Your task to perform on an android device: Play the latest video from the BBC Image 0: 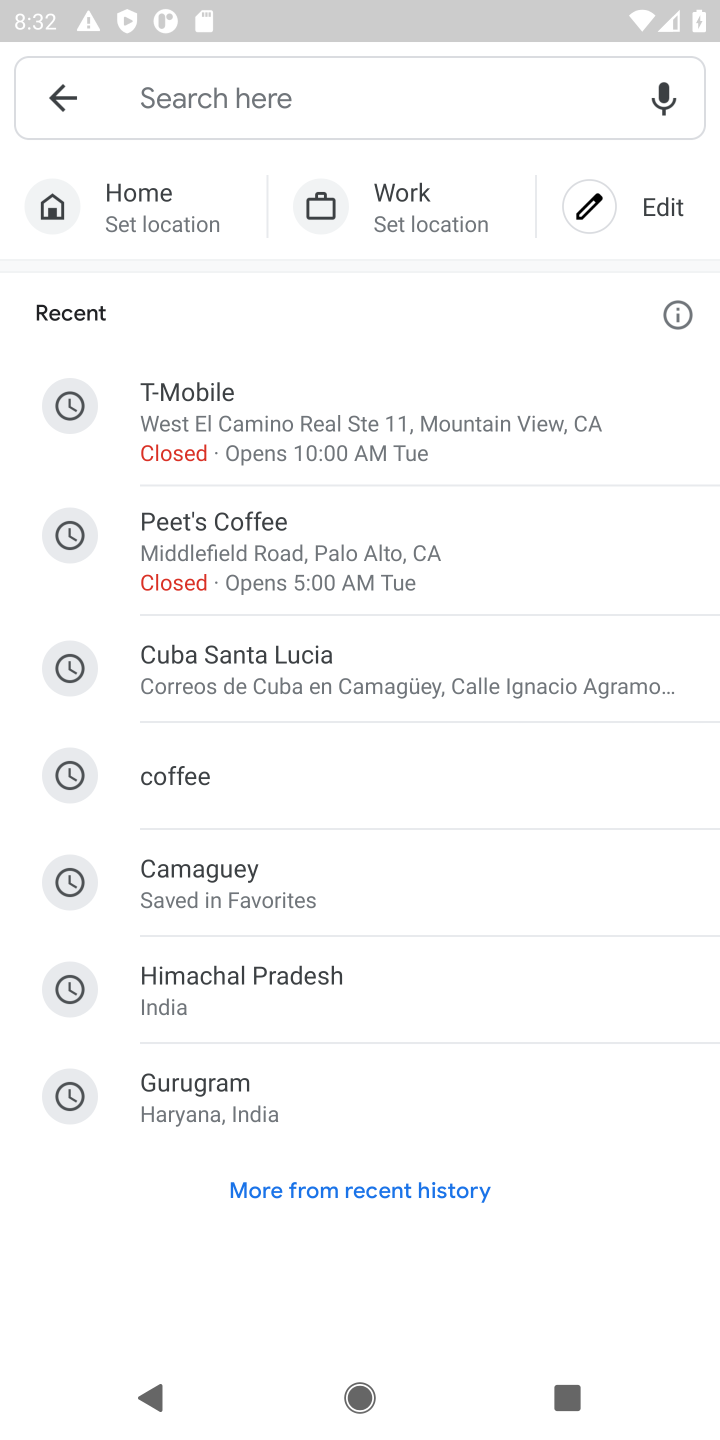
Step 0: press home button
Your task to perform on an android device: Play the latest video from the BBC Image 1: 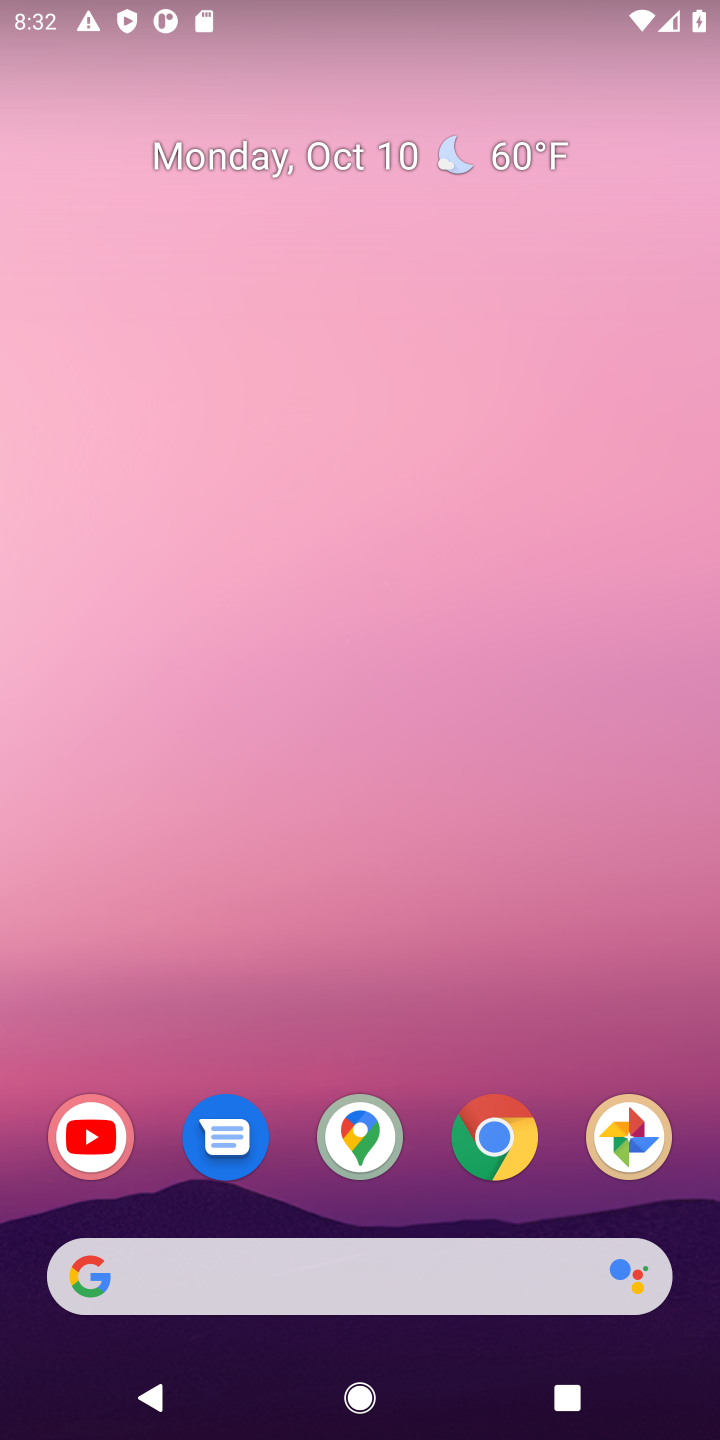
Step 1: click (85, 1140)
Your task to perform on an android device: Play the latest video from the BBC Image 2: 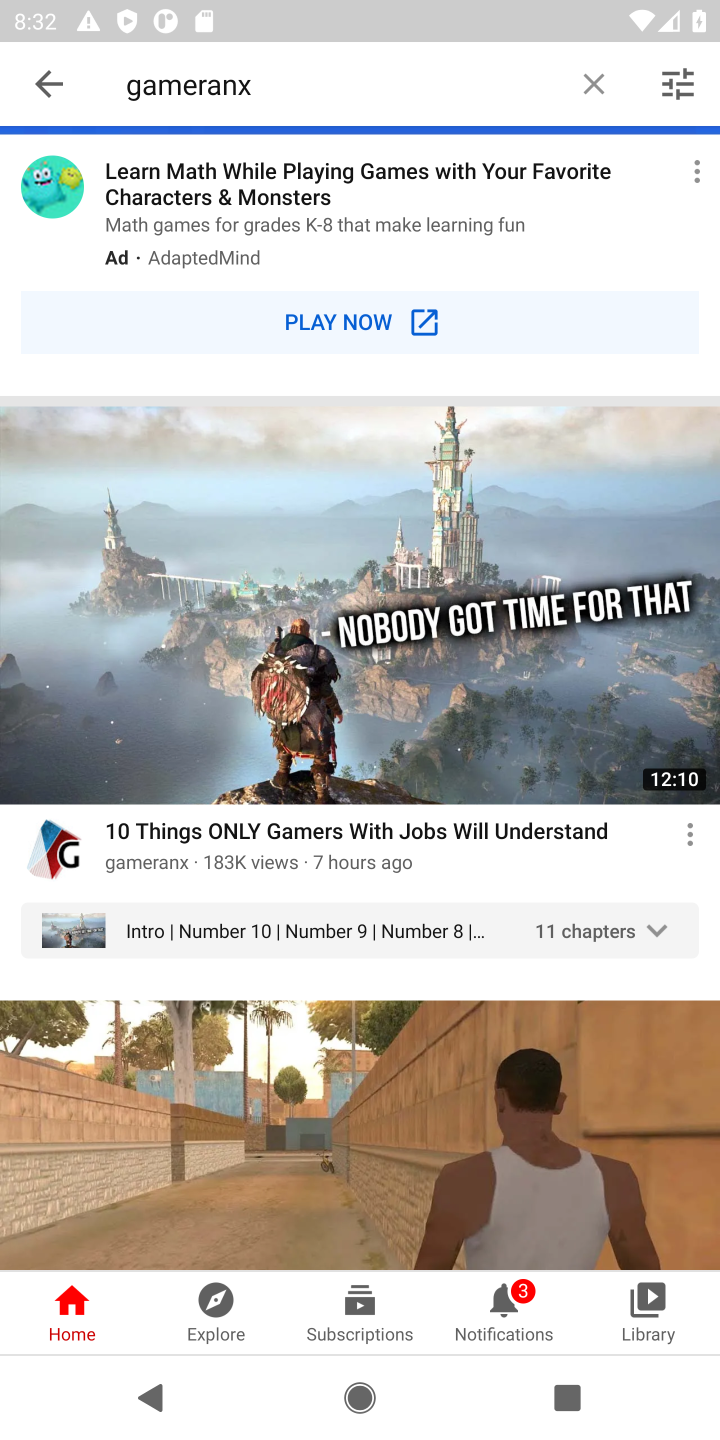
Step 2: click (586, 78)
Your task to perform on an android device: Play the latest video from the BBC Image 3: 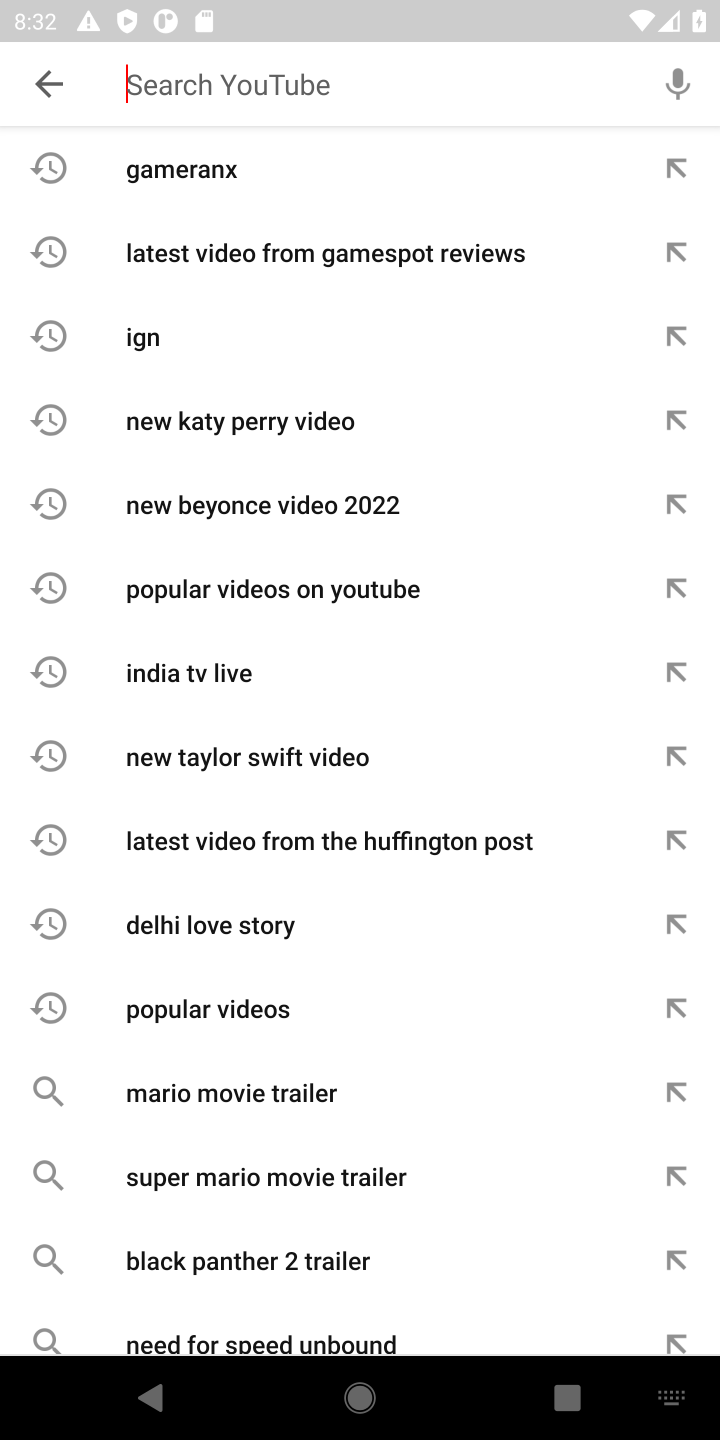
Step 3: type "BBC"
Your task to perform on an android device: Play the latest video from the BBC Image 4: 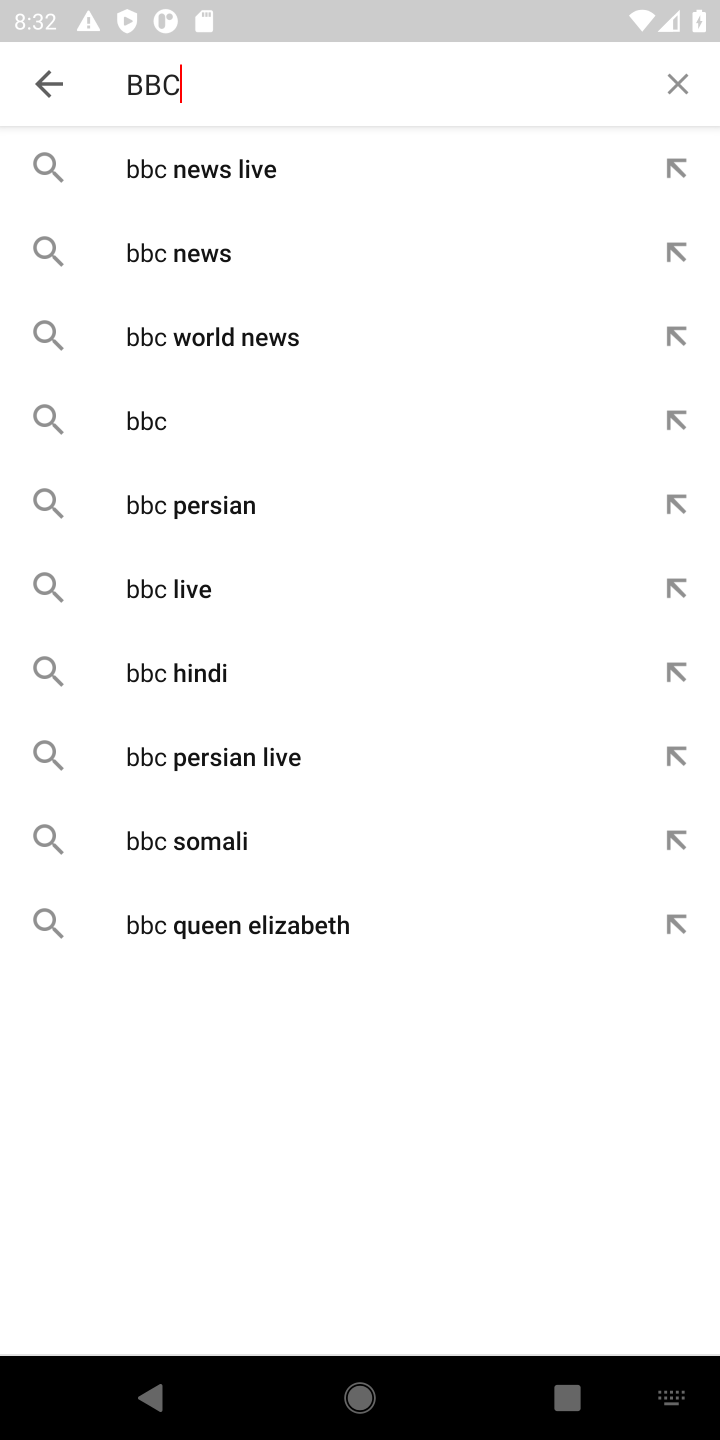
Step 4: click (164, 250)
Your task to perform on an android device: Play the latest video from the BBC Image 5: 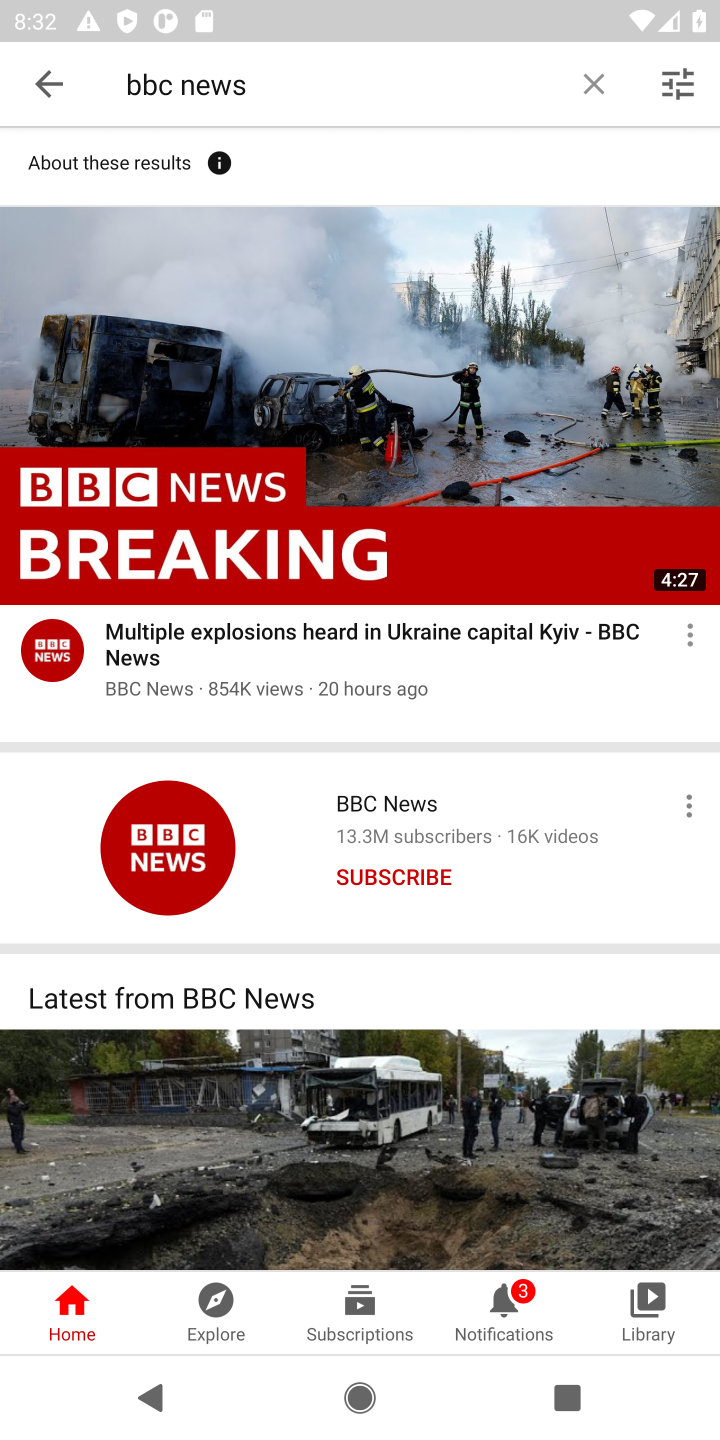
Step 5: click (381, 809)
Your task to perform on an android device: Play the latest video from the BBC Image 6: 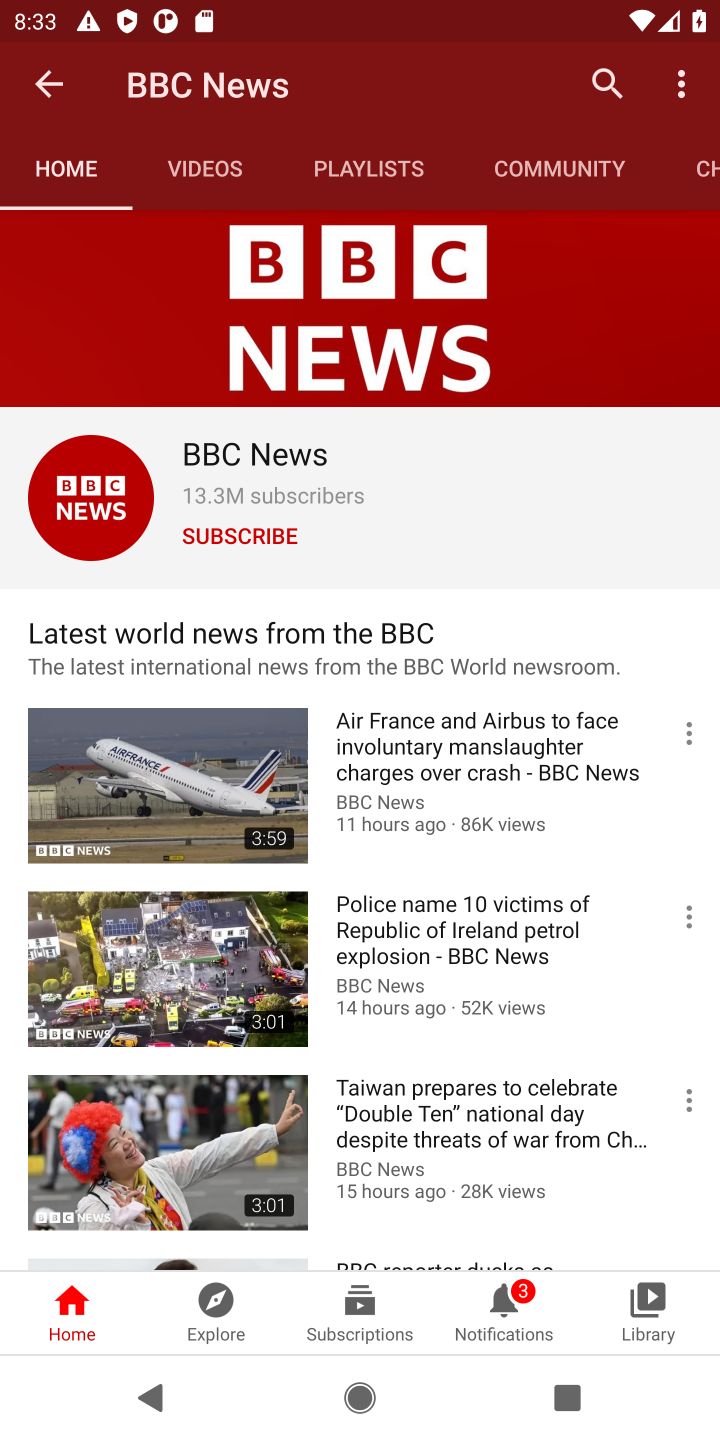
Step 6: click (205, 177)
Your task to perform on an android device: Play the latest video from the BBC Image 7: 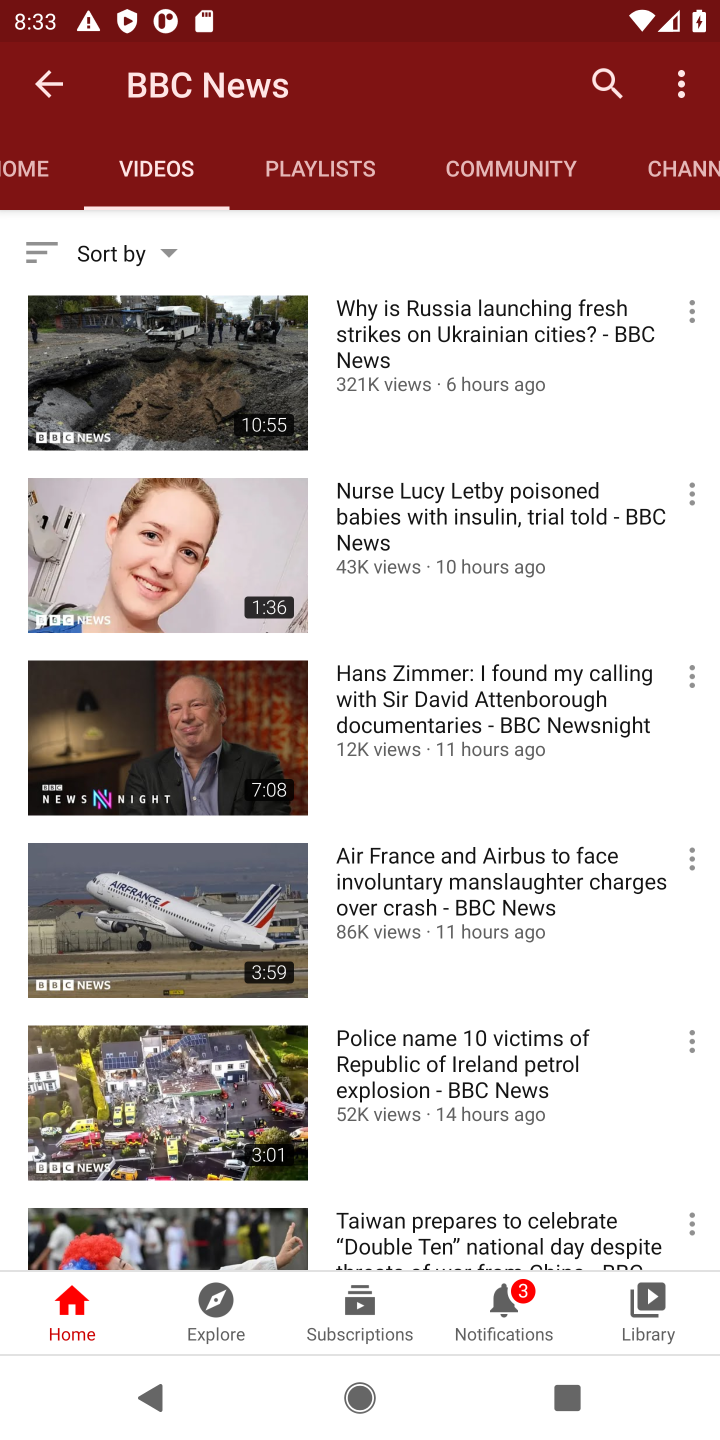
Step 7: click (15, 165)
Your task to perform on an android device: Play the latest video from the BBC Image 8: 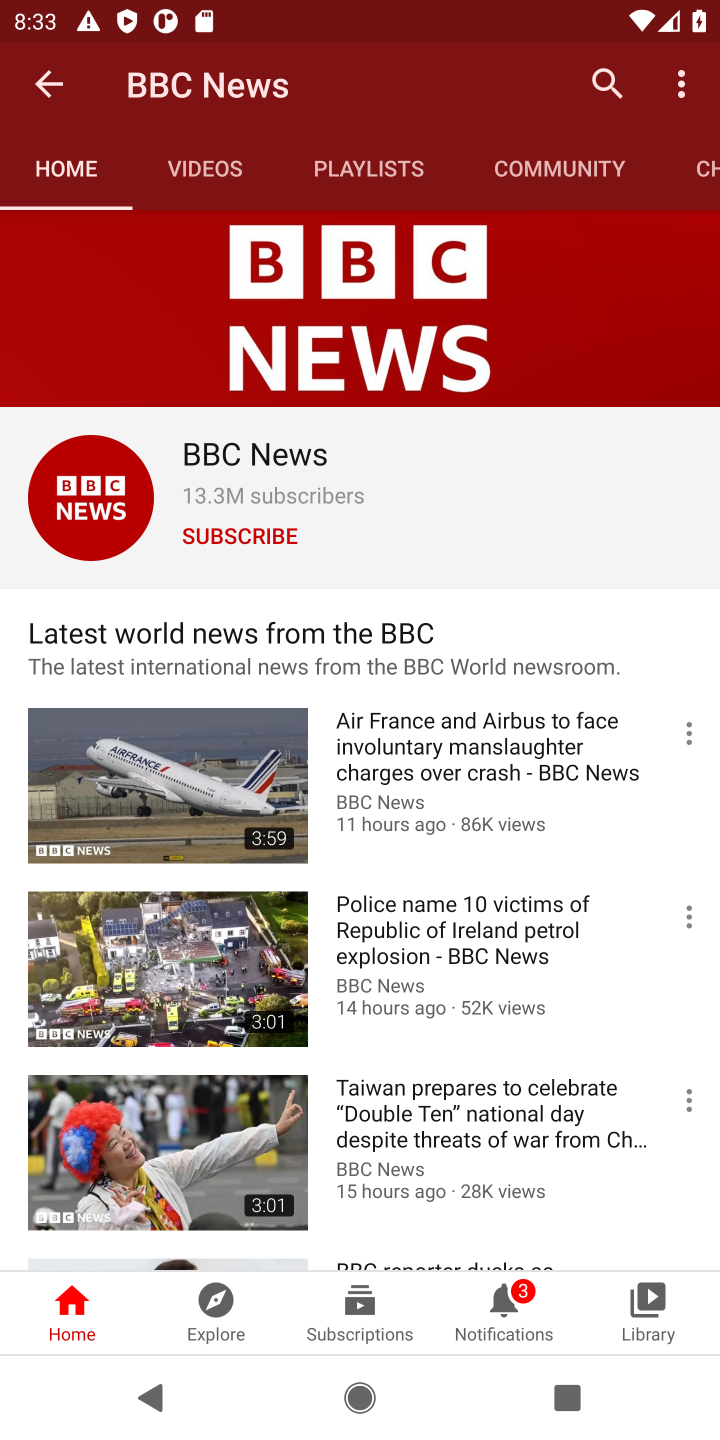
Step 8: click (412, 765)
Your task to perform on an android device: Play the latest video from the BBC Image 9: 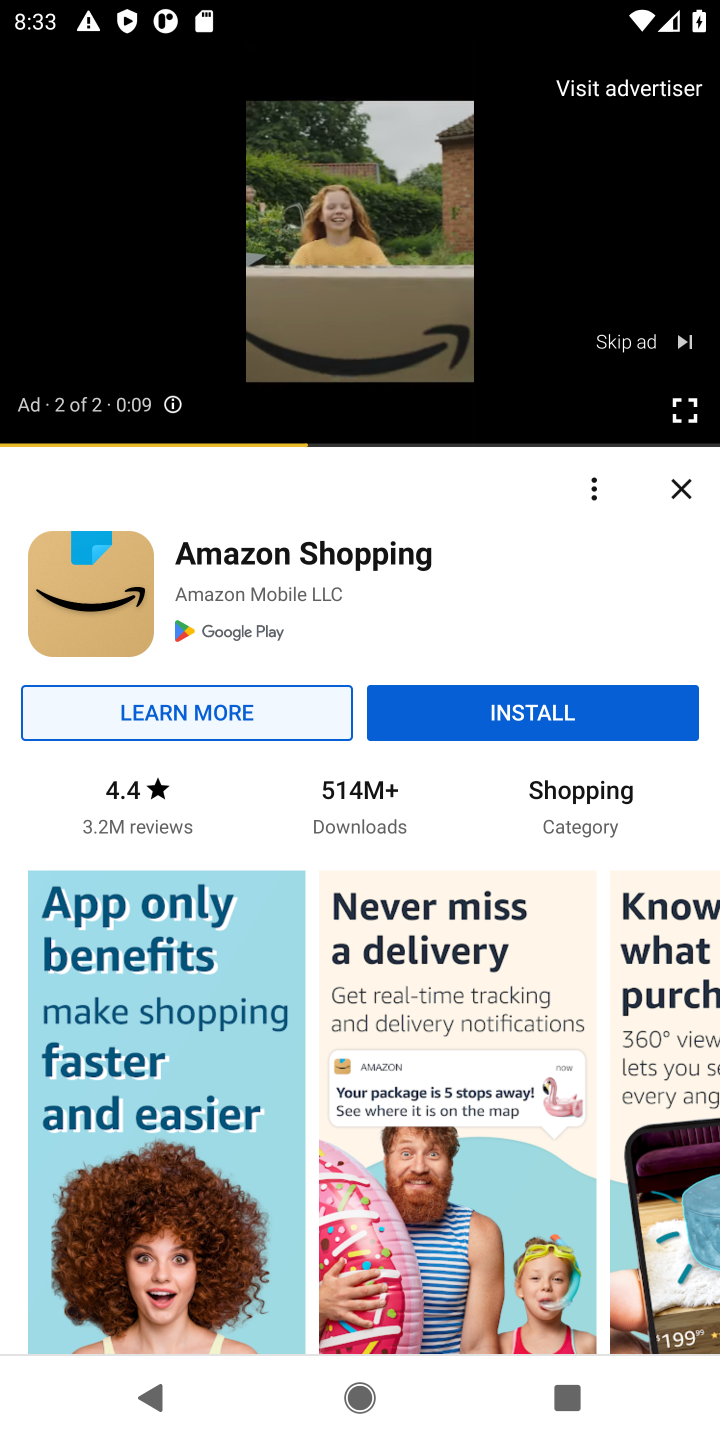
Step 9: click (641, 346)
Your task to perform on an android device: Play the latest video from the BBC Image 10: 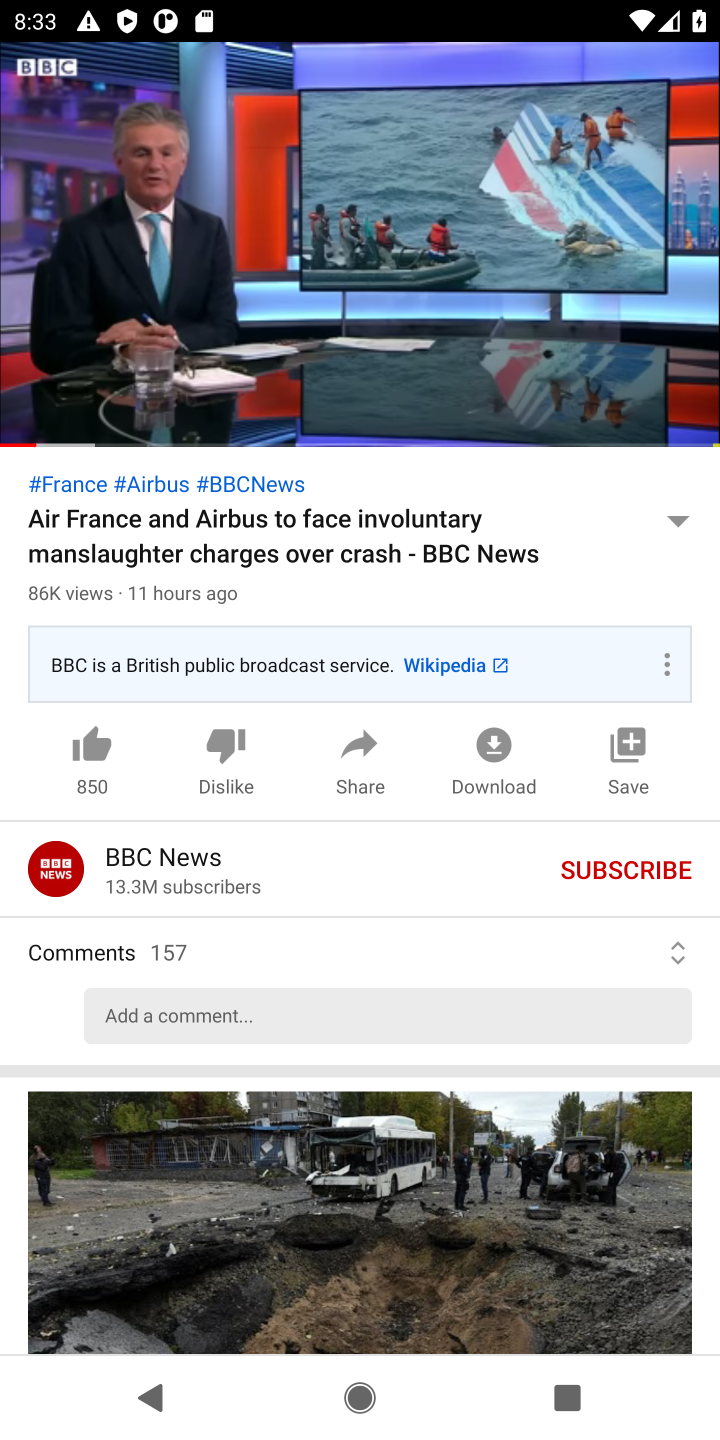
Step 10: click (370, 218)
Your task to perform on an android device: Play the latest video from the BBC Image 11: 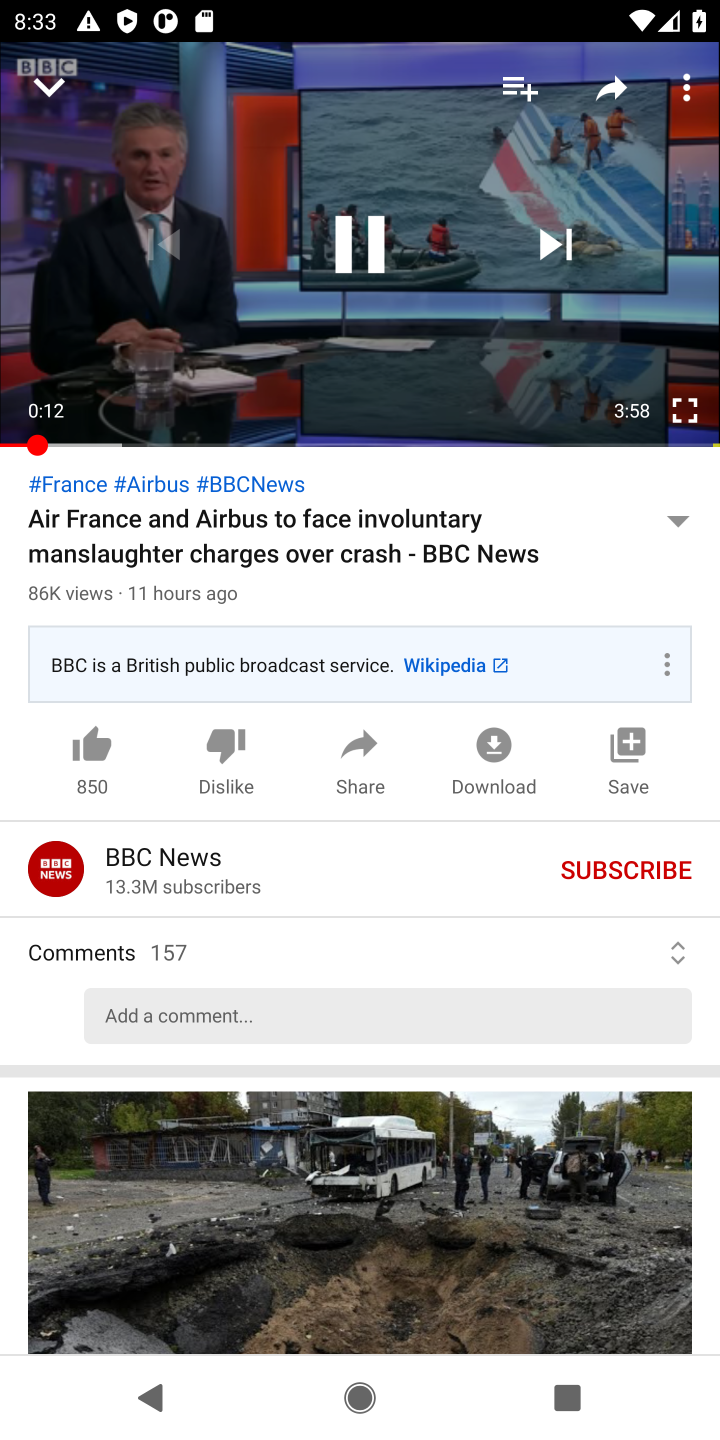
Step 11: click (370, 218)
Your task to perform on an android device: Play the latest video from the BBC Image 12: 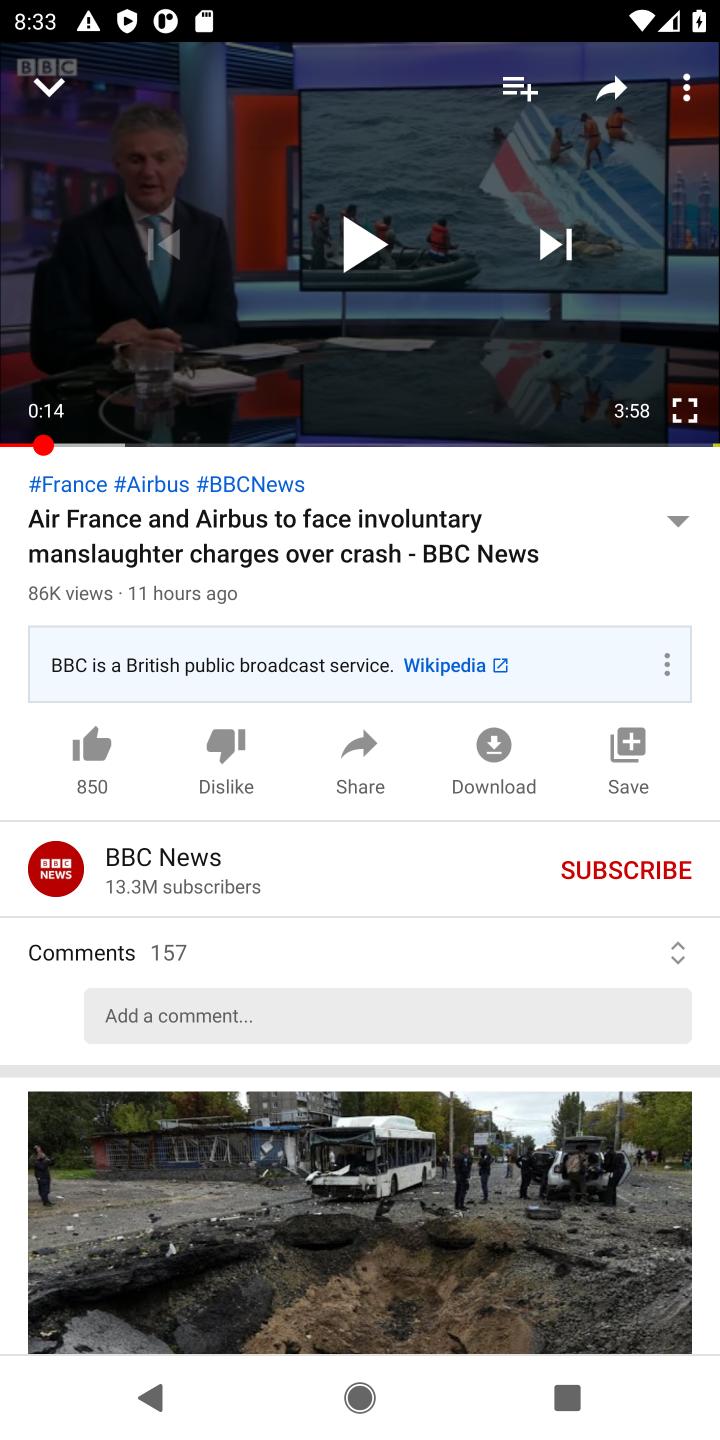
Step 12: task complete